Your task to perform on an android device: Open Google Chrome and open the bookmarks view Image 0: 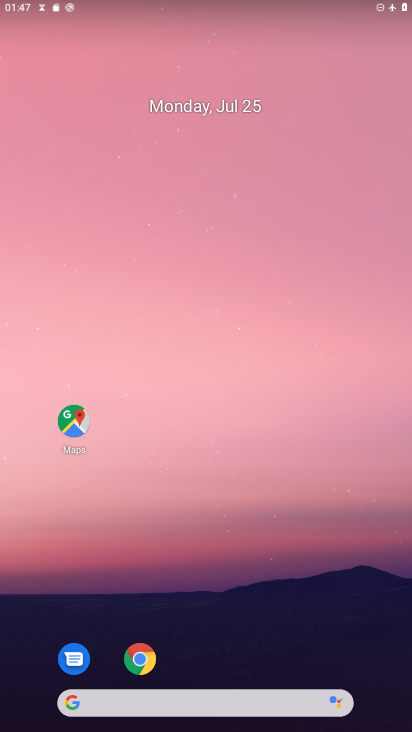
Step 0: drag from (270, 647) to (271, 164)
Your task to perform on an android device: Open Google Chrome and open the bookmarks view Image 1: 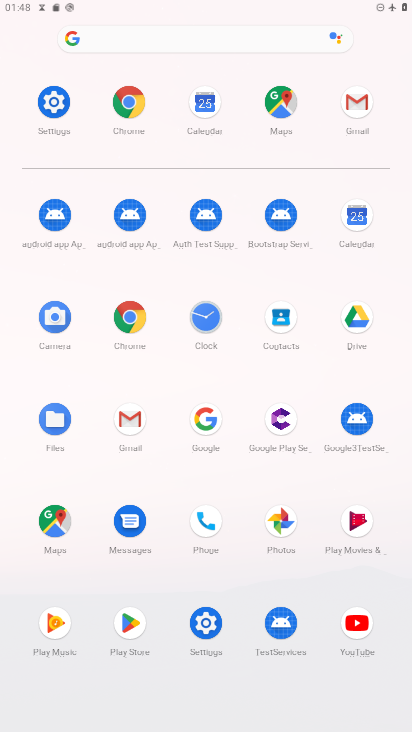
Step 1: click (117, 102)
Your task to perform on an android device: Open Google Chrome and open the bookmarks view Image 2: 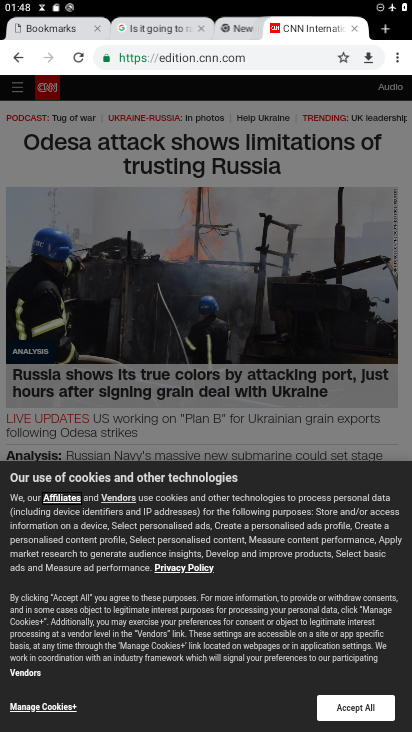
Step 2: click (394, 54)
Your task to perform on an android device: Open Google Chrome and open the bookmarks view Image 3: 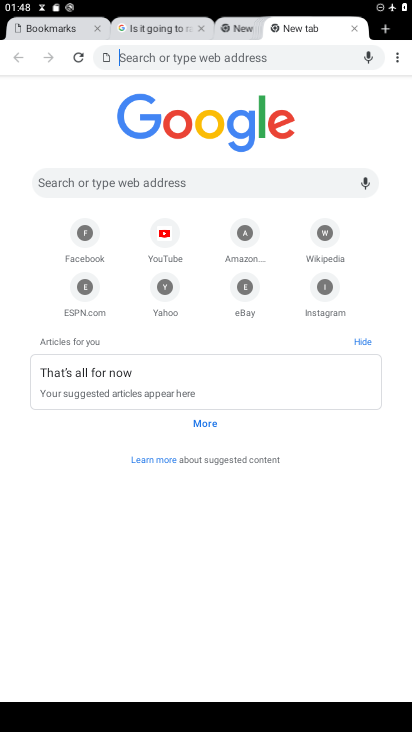
Step 3: click (404, 48)
Your task to perform on an android device: Open Google Chrome and open the bookmarks view Image 4: 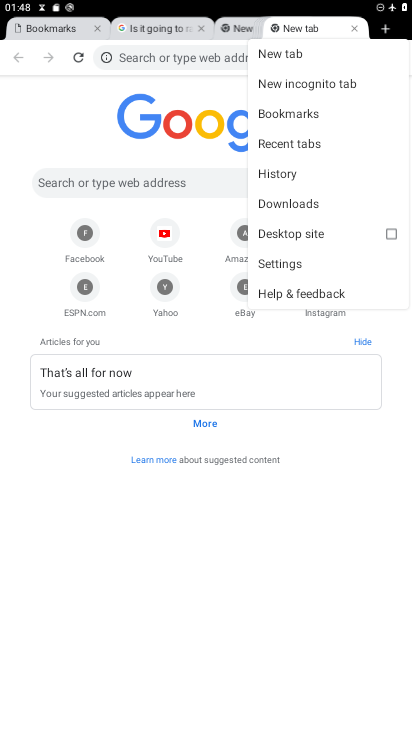
Step 4: click (290, 121)
Your task to perform on an android device: Open Google Chrome and open the bookmarks view Image 5: 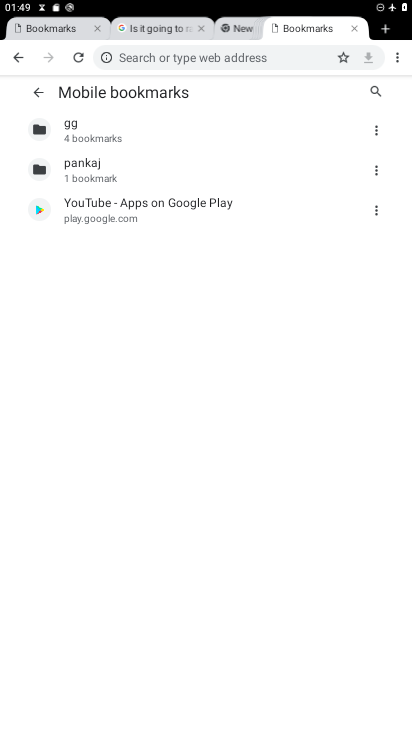
Step 5: task complete